Your task to perform on an android device: visit the assistant section in the google photos Image 0: 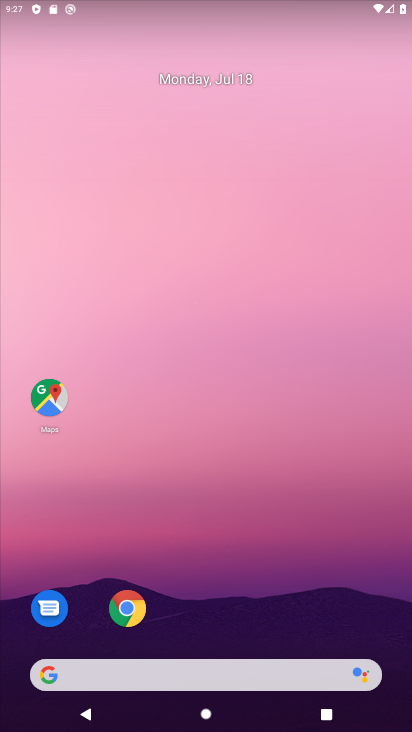
Step 0: drag from (279, 568) to (279, 210)
Your task to perform on an android device: visit the assistant section in the google photos Image 1: 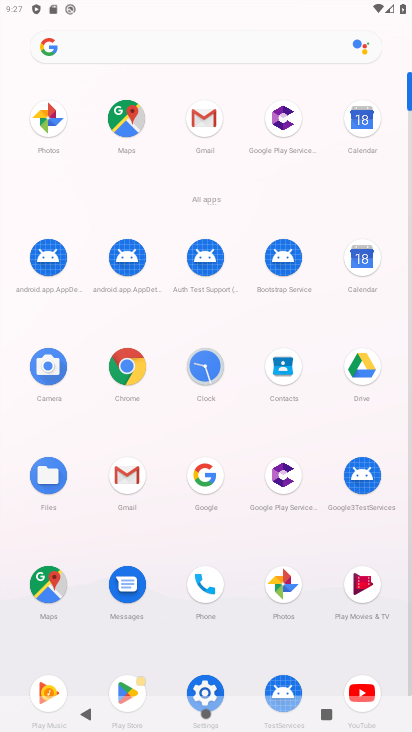
Step 1: click (276, 576)
Your task to perform on an android device: visit the assistant section in the google photos Image 2: 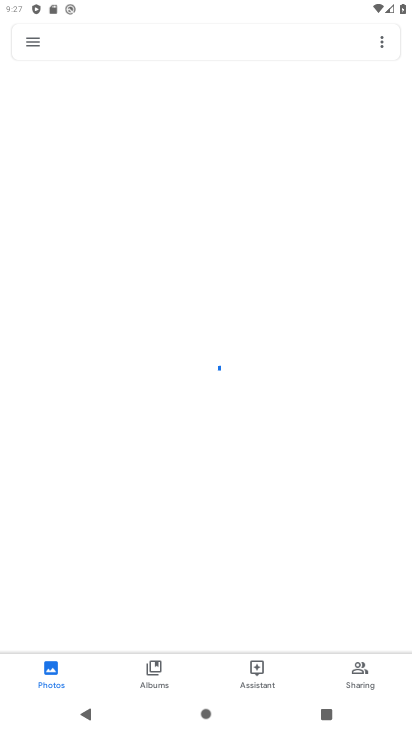
Step 2: click (259, 671)
Your task to perform on an android device: visit the assistant section in the google photos Image 3: 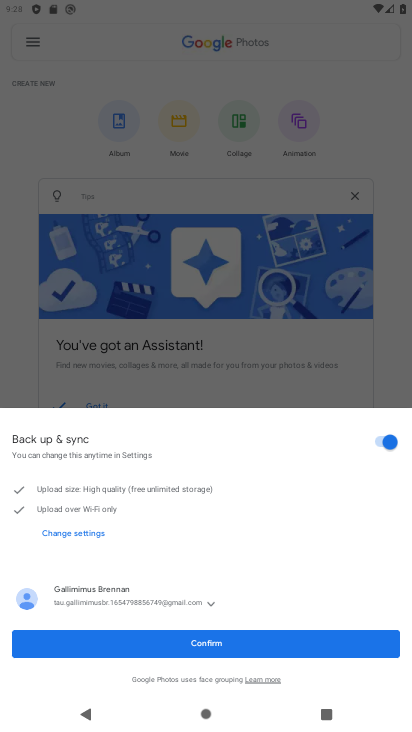
Step 3: click (270, 647)
Your task to perform on an android device: visit the assistant section in the google photos Image 4: 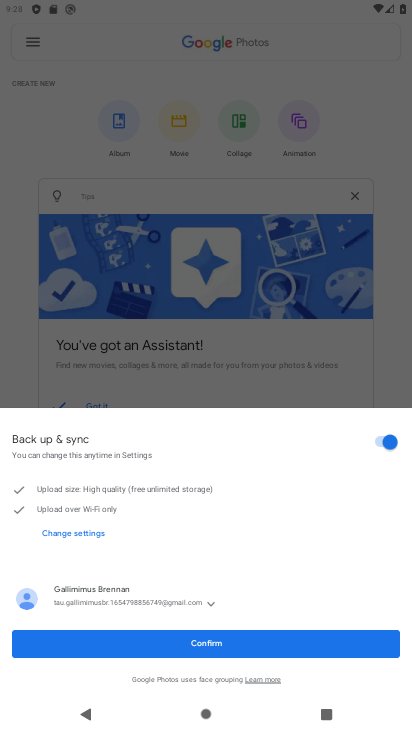
Step 4: click (270, 647)
Your task to perform on an android device: visit the assistant section in the google photos Image 5: 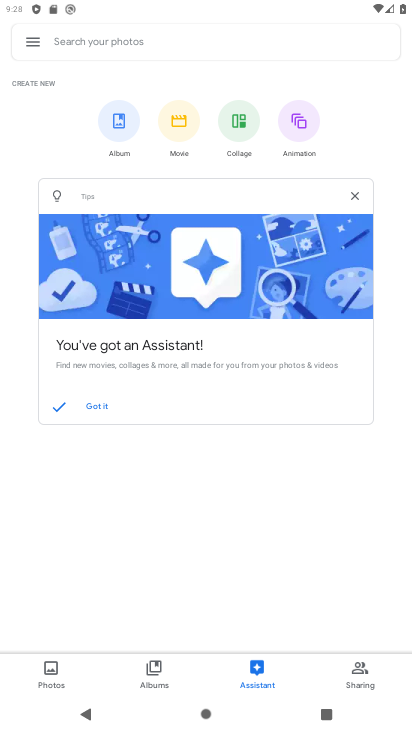
Step 5: task complete